Your task to perform on an android device: add a contact in the contacts app Image 0: 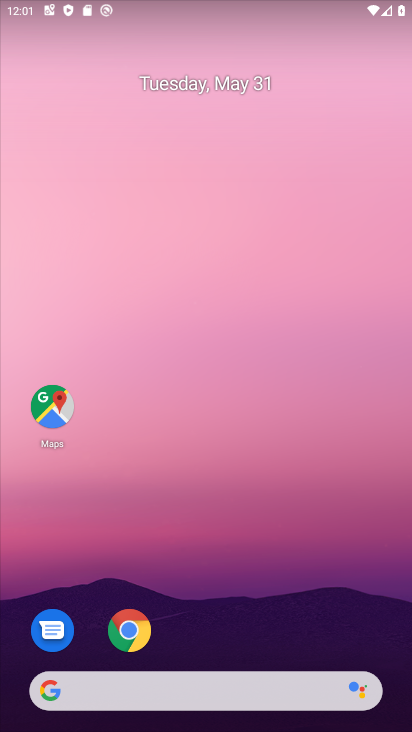
Step 0: press home button
Your task to perform on an android device: add a contact in the contacts app Image 1: 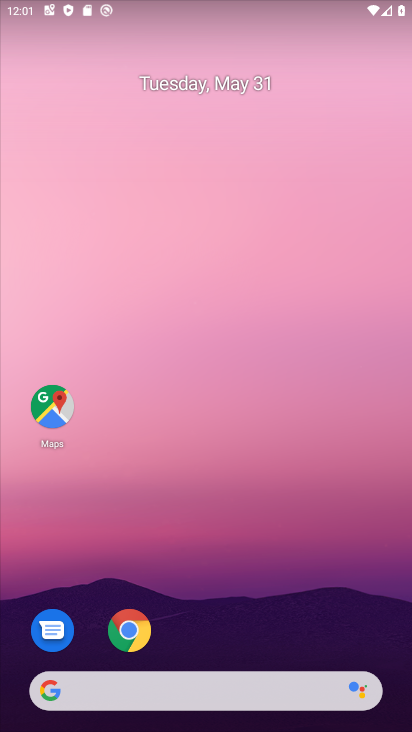
Step 1: drag from (103, 690) to (290, 233)
Your task to perform on an android device: add a contact in the contacts app Image 2: 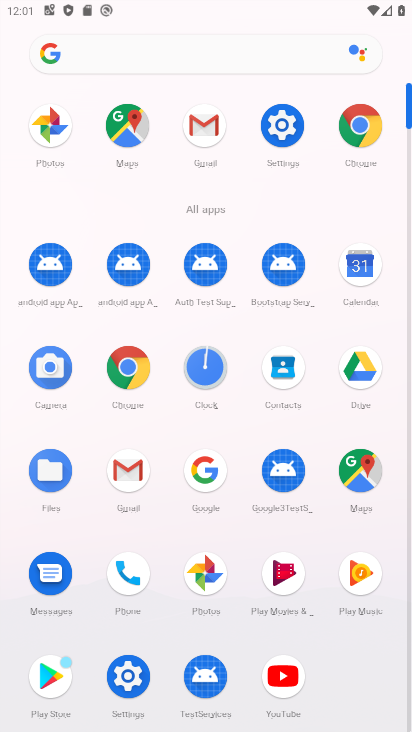
Step 2: click (281, 375)
Your task to perform on an android device: add a contact in the contacts app Image 3: 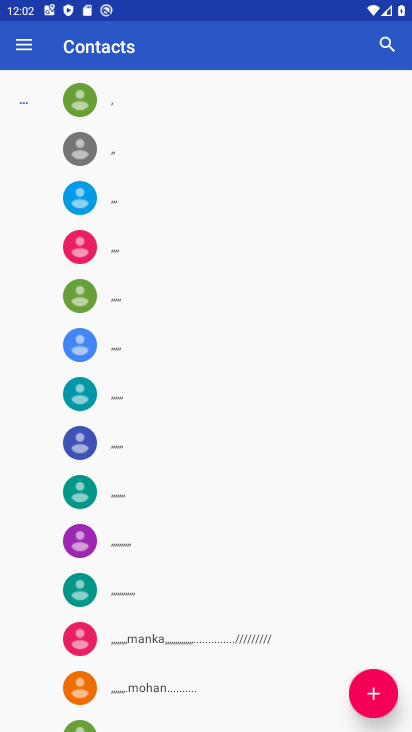
Step 3: click (371, 695)
Your task to perform on an android device: add a contact in the contacts app Image 4: 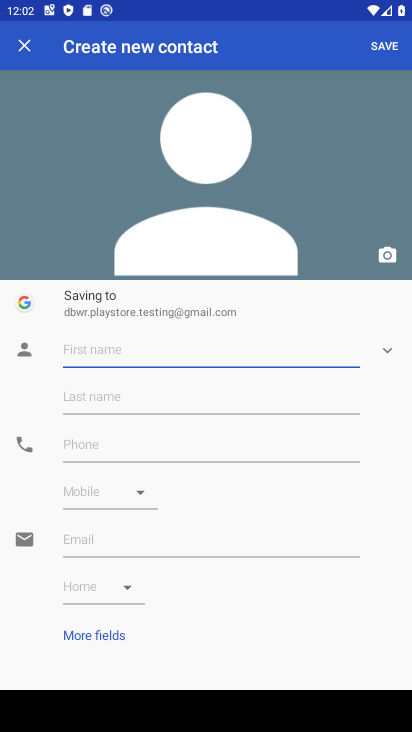
Step 4: click (100, 345)
Your task to perform on an android device: add a contact in the contacts app Image 5: 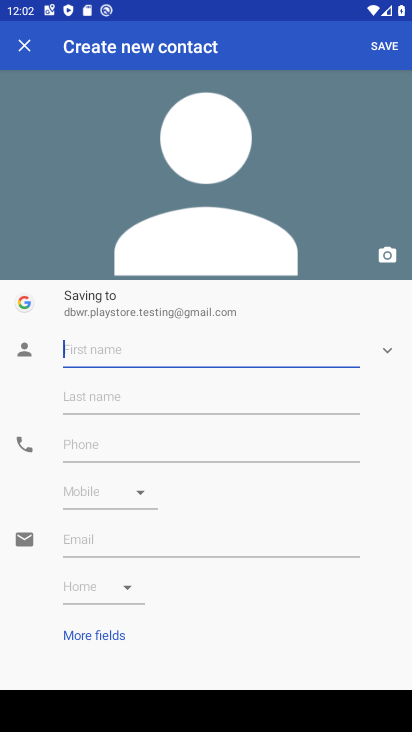
Step 5: type "nhuuyy"
Your task to perform on an android device: add a contact in the contacts app Image 6: 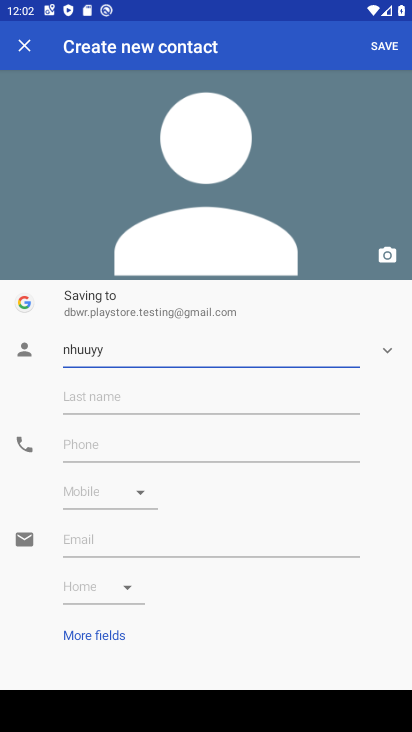
Step 6: click (87, 443)
Your task to perform on an android device: add a contact in the contacts app Image 7: 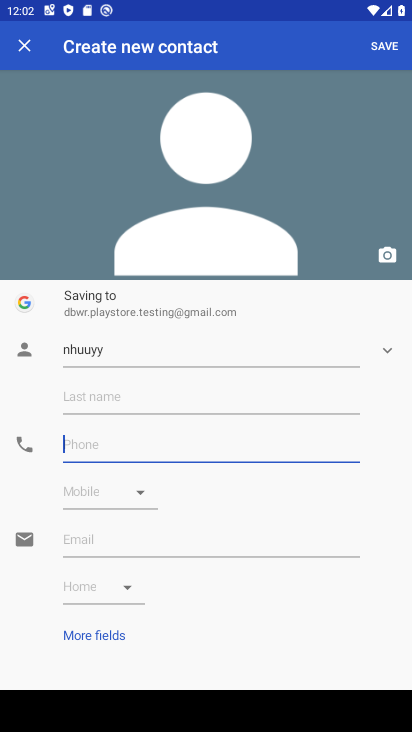
Step 7: type "5677"
Your task to perform on an android device: add a contact in the contacts app Image 8: 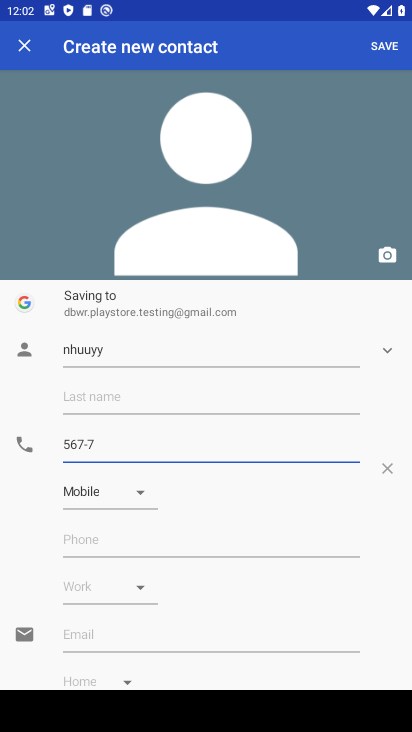
Step 8: click (383, 44)
Your task to perform on an android device: add a contact in the contacts app Image 9: 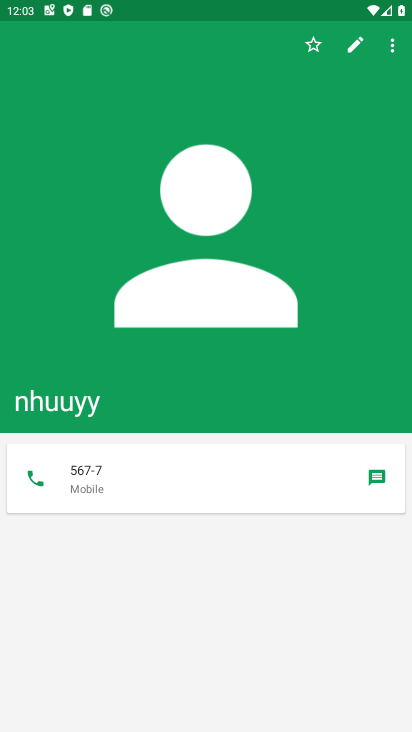
Step 9: task complete